Your task to perform on an android device: Open accessibility settings Image 0: 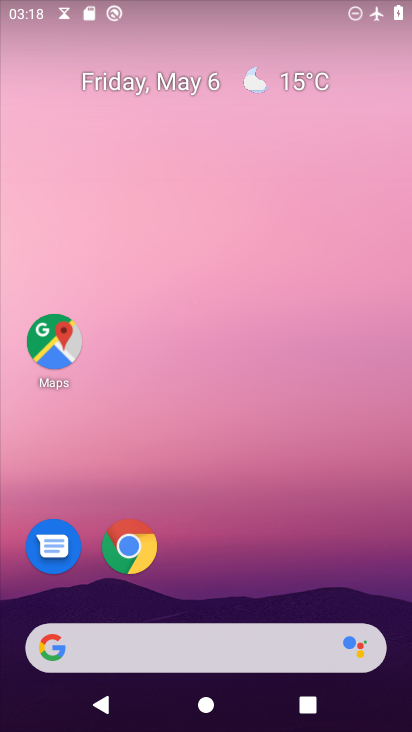
Step 0: drag from (272, 307) to (272, 118)
Your task to perform on an android device: Open accessibility settings Image 1: 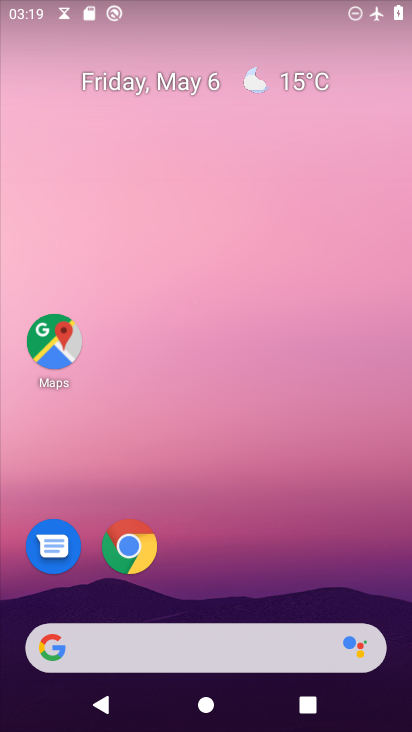
Step 1: drag from (288, 565) to (257, 133)
Your task to perform on an android device: Open accessibility settings Image 2: 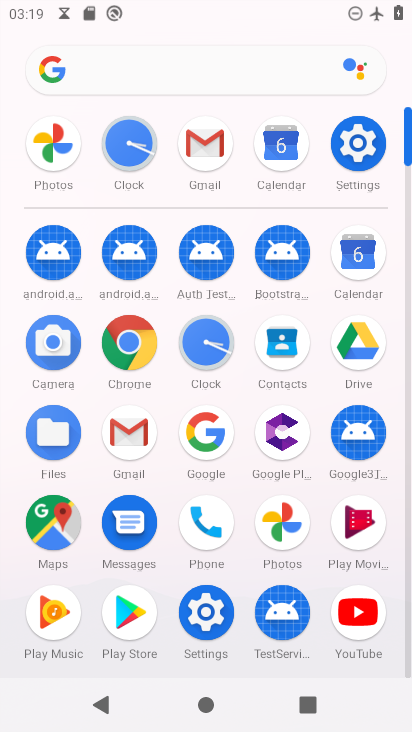
Step 2: click (358, 151)
Your task to perform on an android device: Open accessibility settings Image 3: 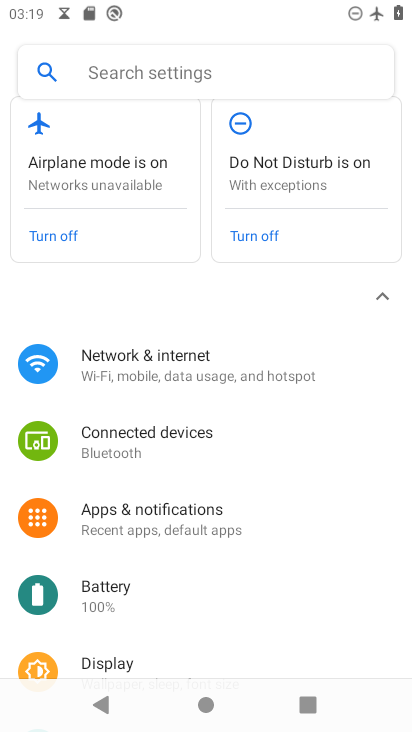
Step 3: drag from (259, 574) to (219, 238)
Your task to perform on an android device: Open accessibility settings Image 4: 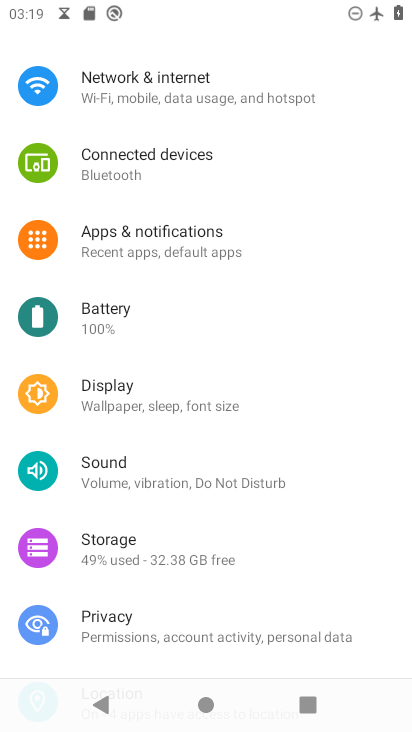
Step 4: drag from (250, 520) to (249, 189)
Your task to perform on an android device: Open accessibility settings Image 5: 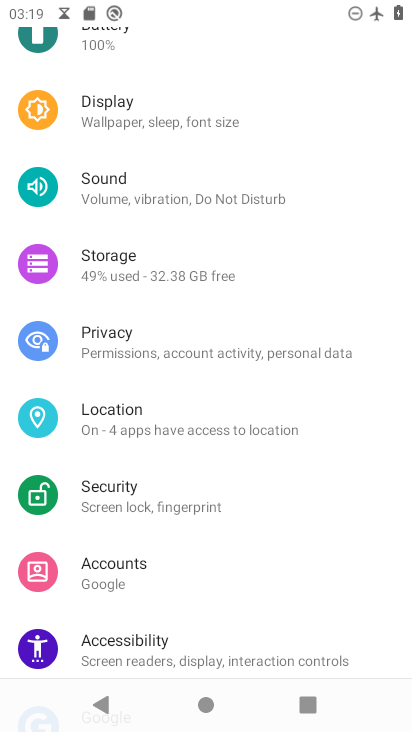
Step 5: click (216, 650)
Your task to perform on an android device: Open accessibility settings Image 6: 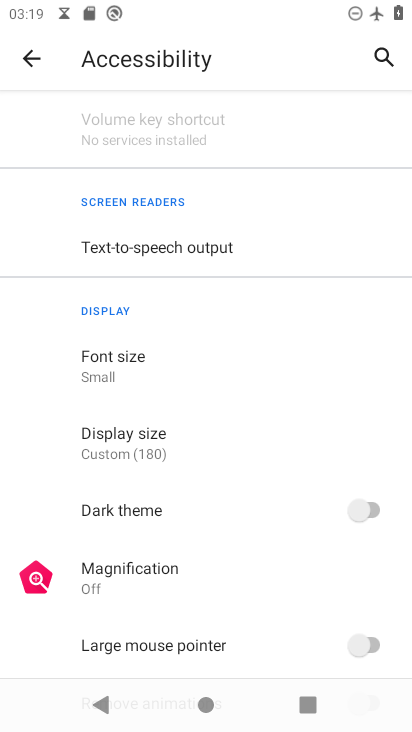
Step 6: task complete